Your task to perform on an android device: Go to sound settings Image 0: 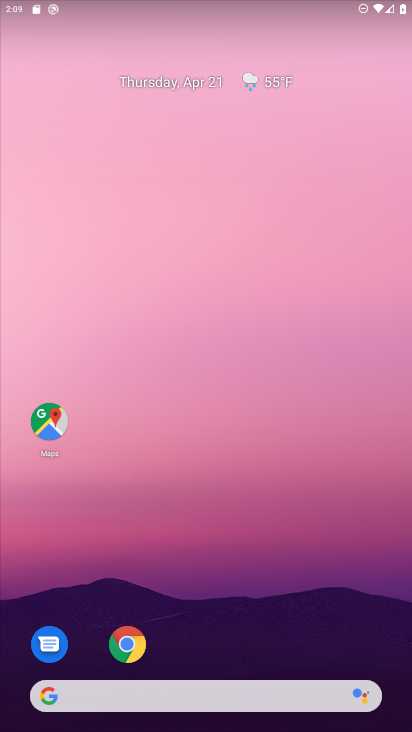
Step 0: drag from (209, 603) to (186, 232)
Your task to perform on an android device: Go to sound settings Image 1: 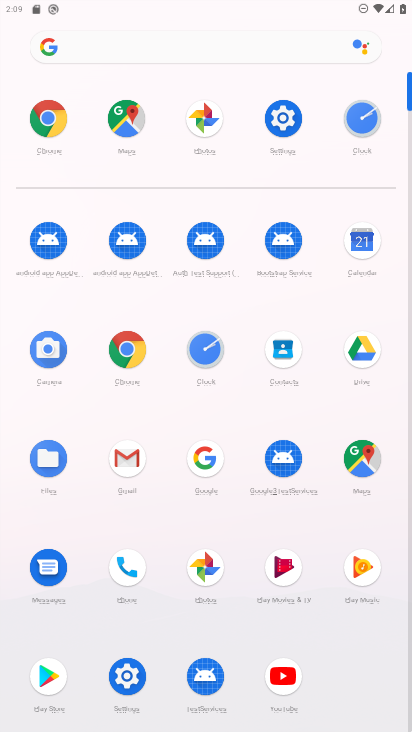
Step 1: click (280, 119)
Your task to perform on an android device: Go to sound settings Image 2: 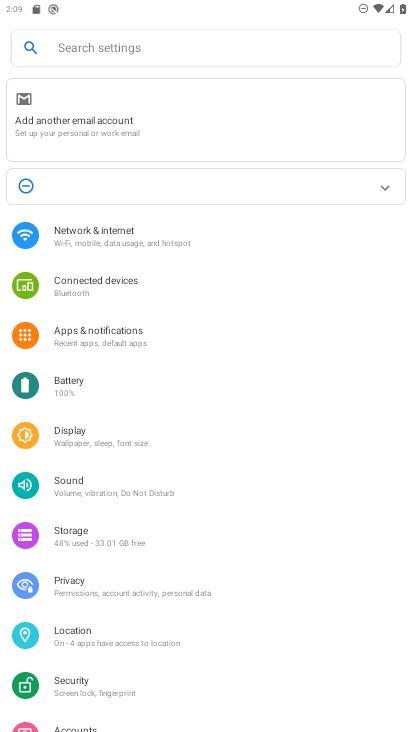
Step 2: click (224, 504)
Your task to perform on an android device: Go to sound settings Image 3: 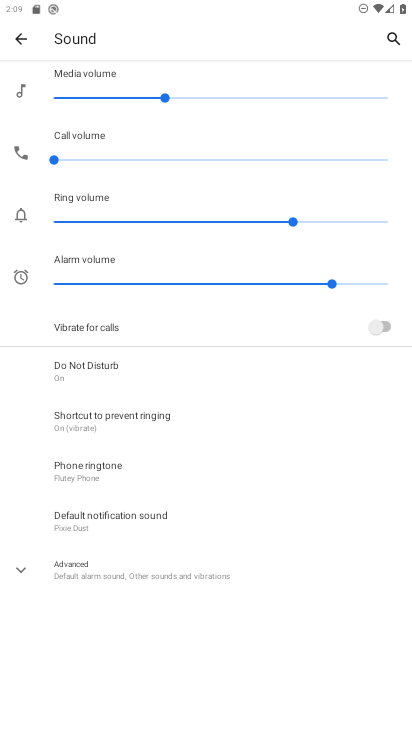
Step 3: task complete